Your task to perform on an android device: turn off location Image 0: 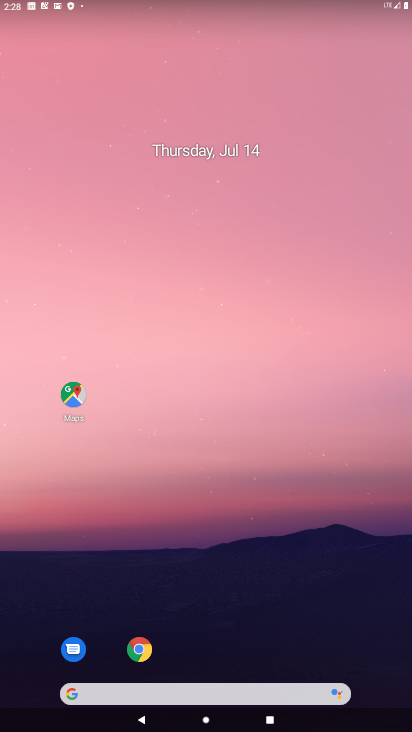
Step 0: drag from (384, 637) to (233, 61)
Your task to perform on an android device: turn off location Image 1: 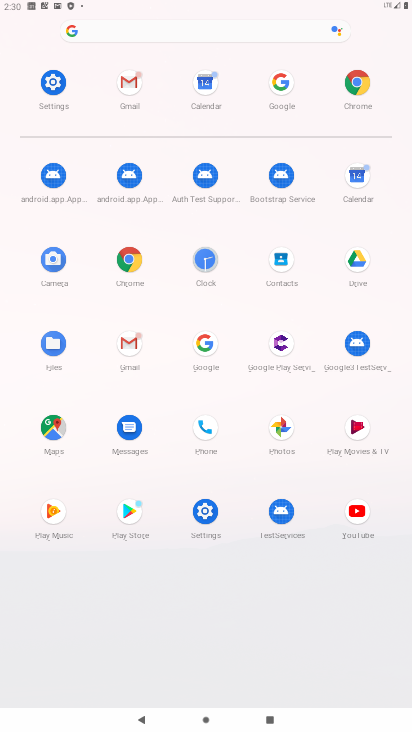
Step 1: click (214, 514)
Your task to perform on an android device: turn off location Image 2: 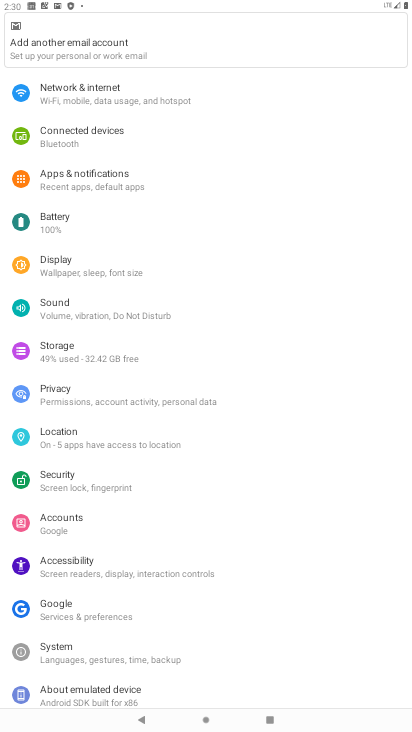
Step 2: click (84, 434)
Your task to perform on an android device: turn off location Image 3: 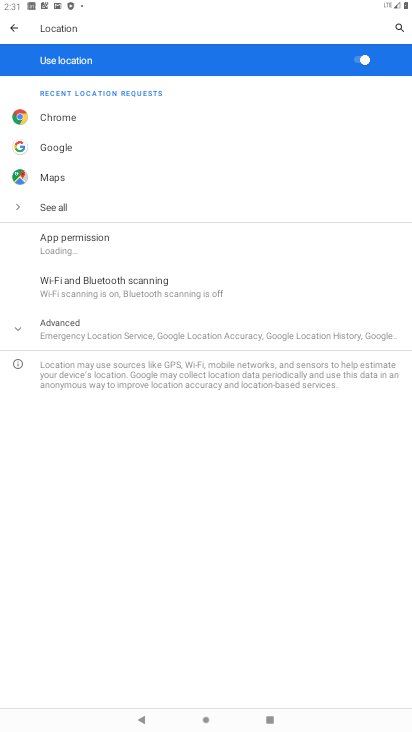
Step 3: click (379, 54)
Your task to perform on an android device: turn off location Image 4: 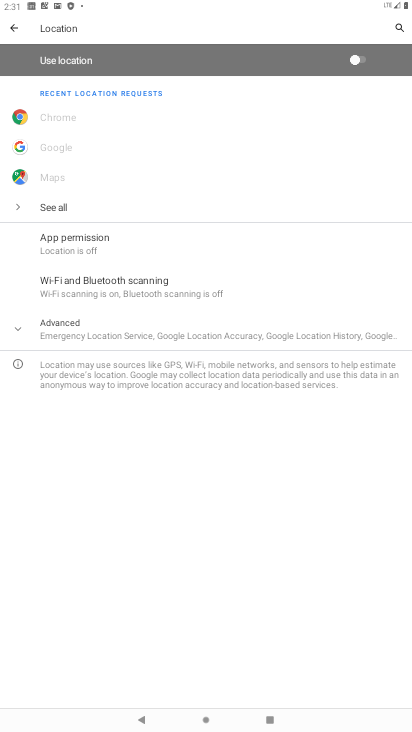
Step 4: task complete